Your task to perform on an android device: open chrome privacy settings Image 0: 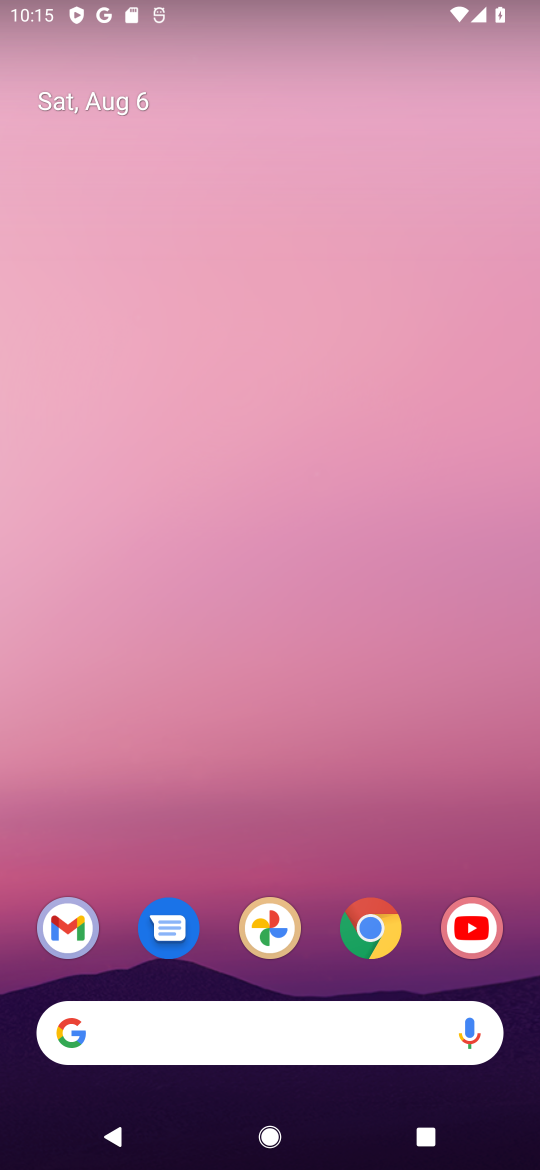
Step 0: click (398, 927)
Your task to perform on an android device: open chrome privacy settings Image 1: 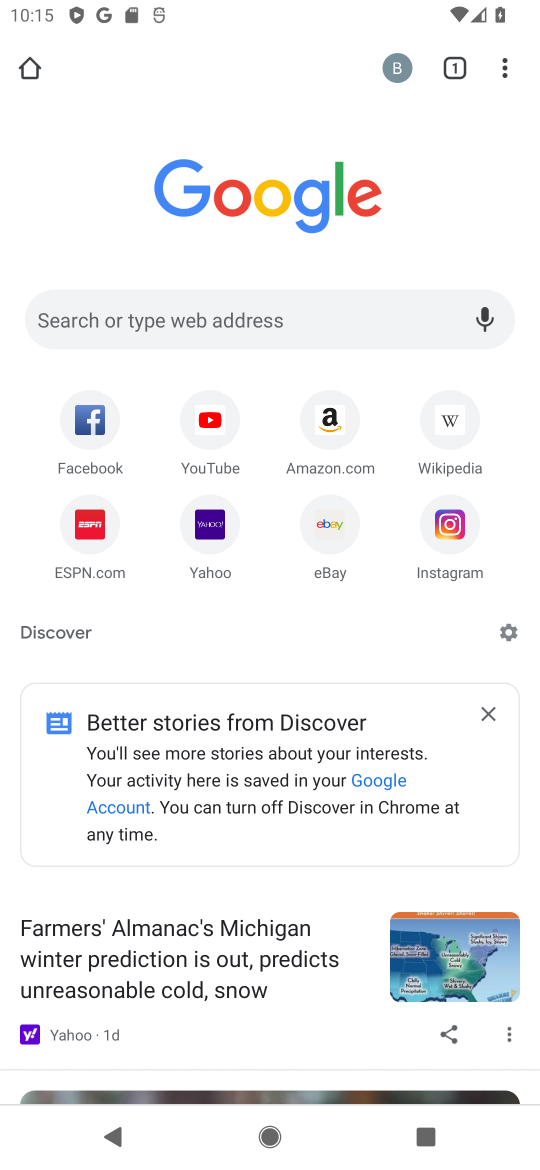
Step 1: click (504, 68)
Your task to perform on an android device: open chrome privacy settings Image 2: 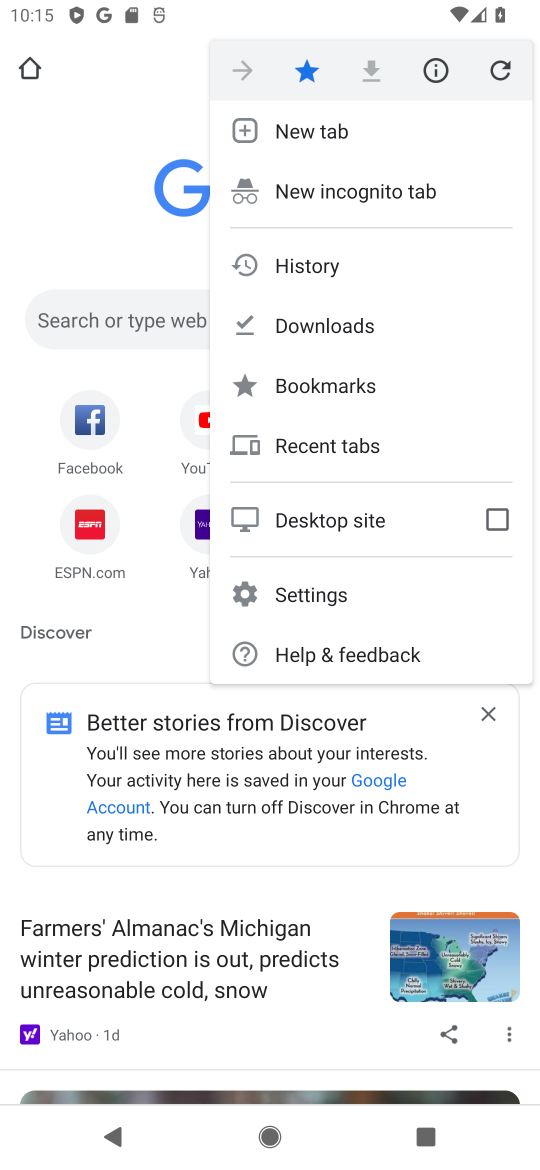
Step 2: click (301, 591)
Your task to perform on an android device: open chrome privacy settings Image 3: 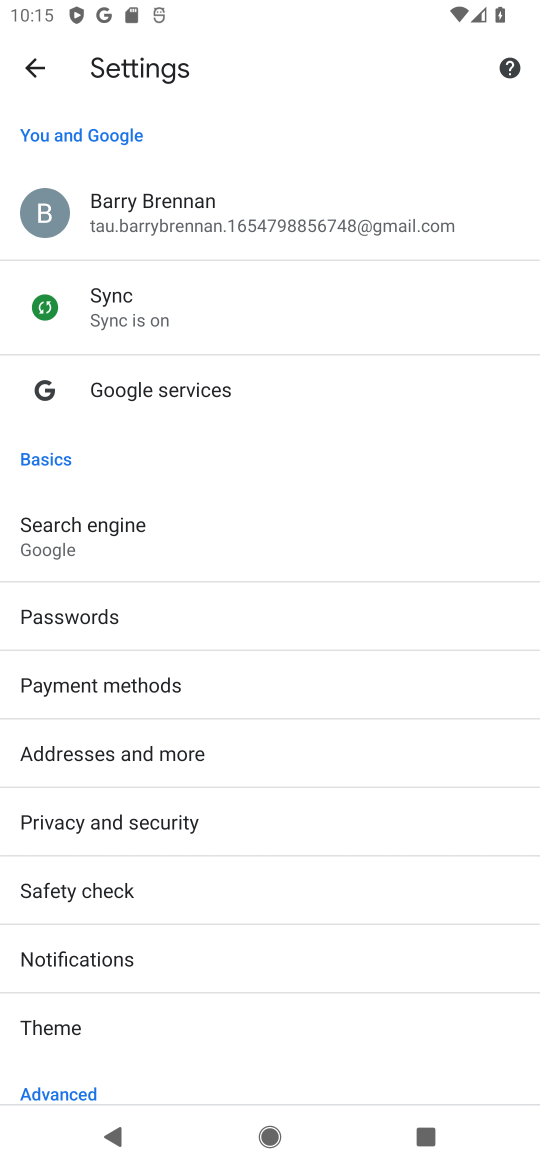
Step 3: click (98, 826)
Your task to perform on an android device: open chrome privacy settings Image 4: 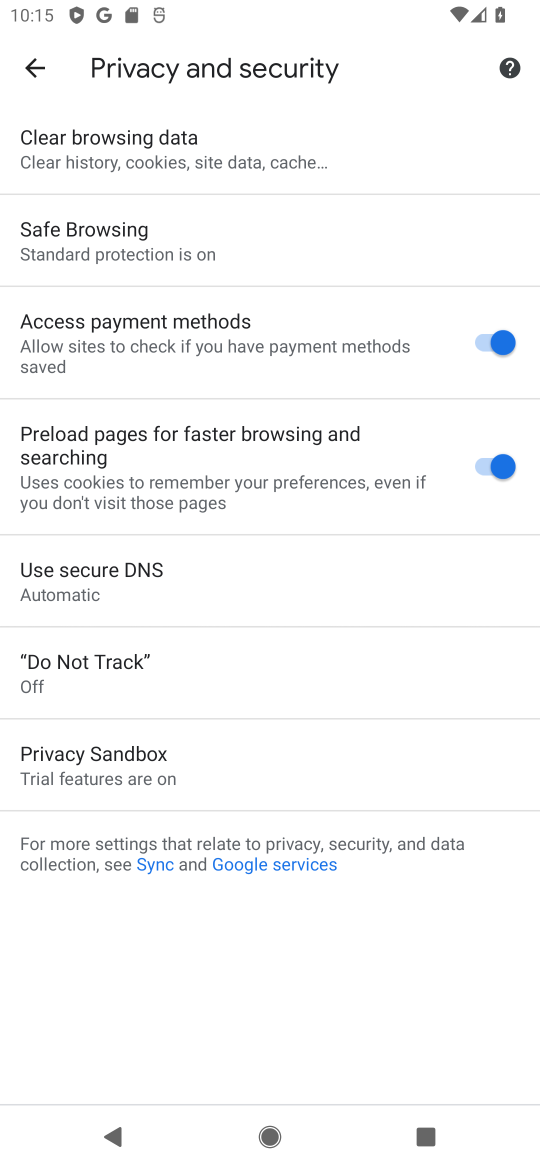
Step 4: click (181, 772)
Your task to perform on an android device: open chrome privacy settings Image 5: 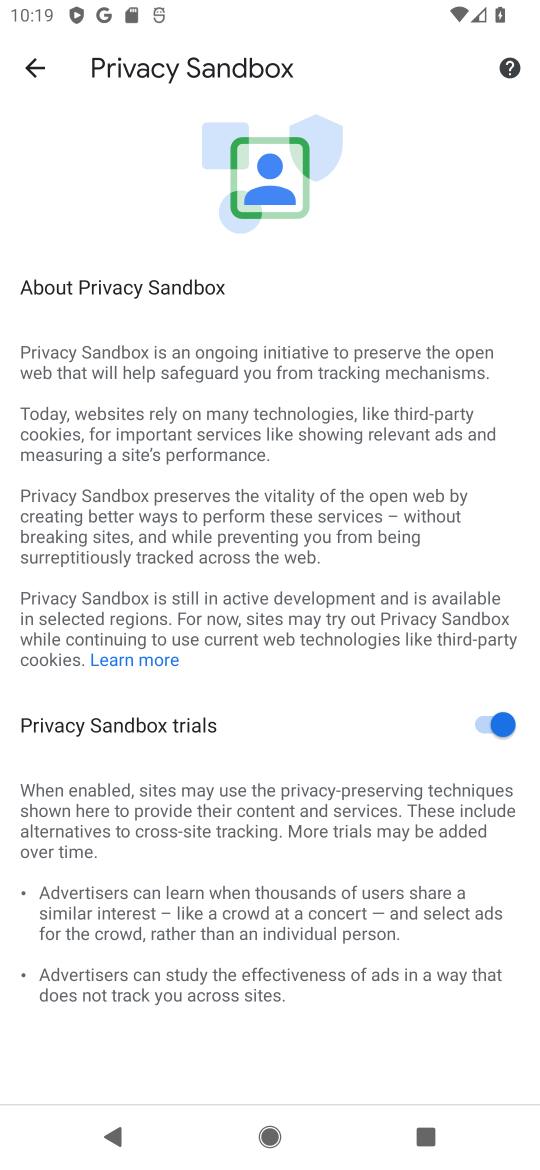
Step 5: task complete